Your task to perform on an android device: turn on sleep mode Image 0: 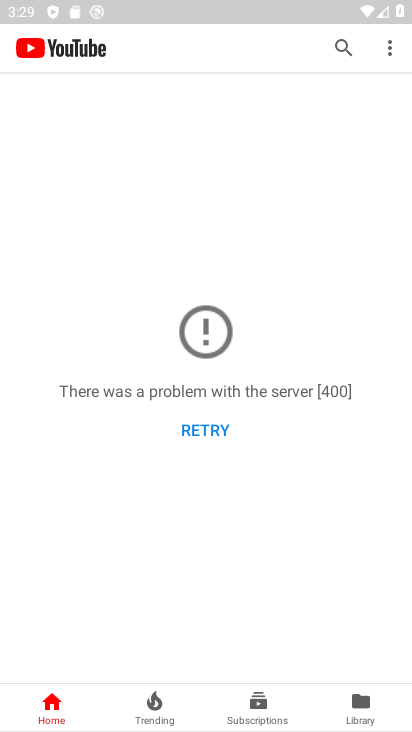
Step 0: press home button
Your task to perform on an android device: turn on sleep mode Image 1: 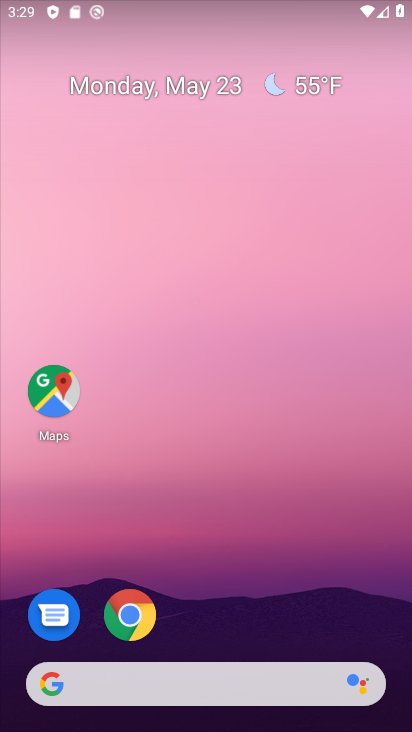
Step 1: drag from (361, 634) to (331, 270)
Your task to perform on an android device: turn on sleep mode Image 2: 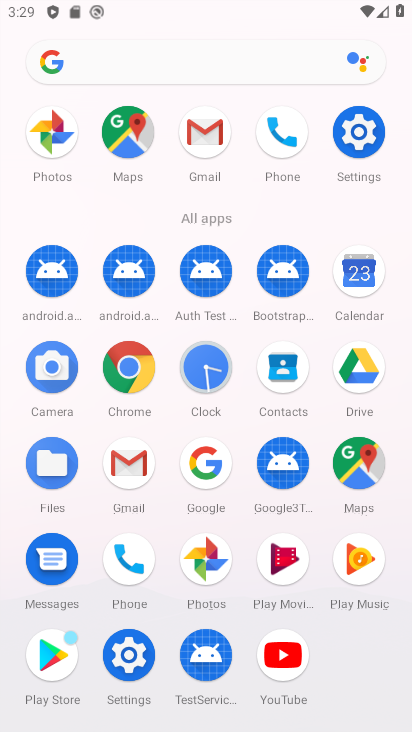
Step 2: click (133, 654)
Your task to perform on an android device: turn on sleep mode Image 3: 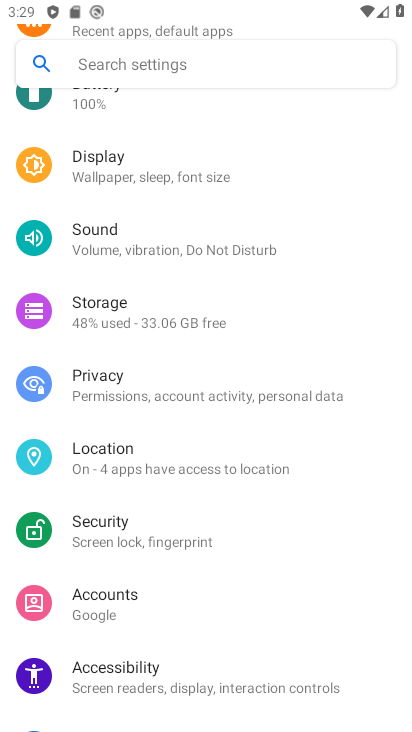
Step 3: drag from (354, 311) to (329, 540)
Your task to perform on an android device: turn on sleep mode Image 4: 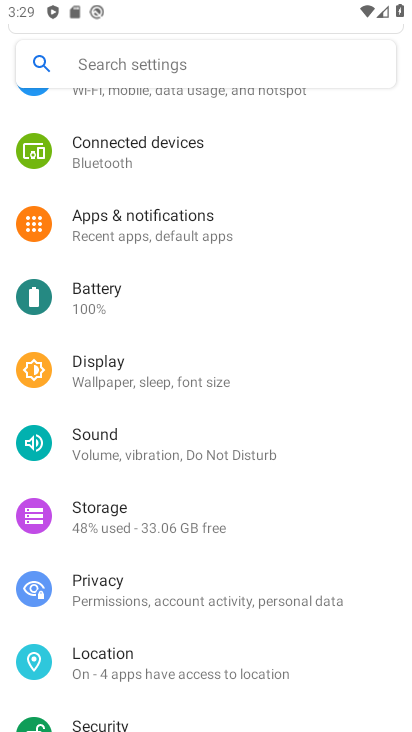
Step 4: drag from (340, 249) to (309, 528)
Your task to perform on an android device: turn on sleep mode Image 5: 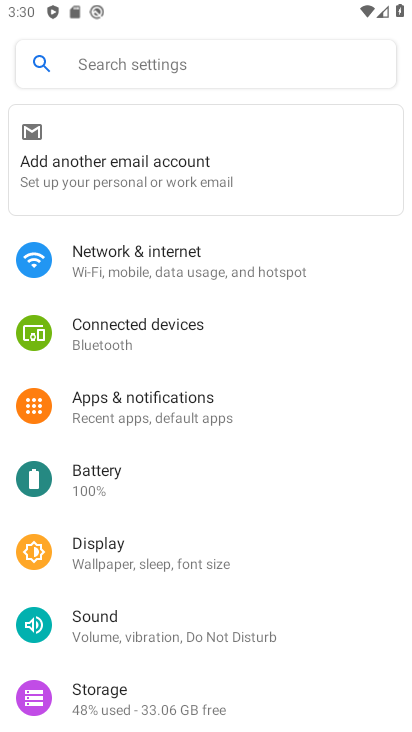
Step 5: drag from (338, 582) to (337, 387)
Your task to perform on an android device: turn on sleep mode Image 6: 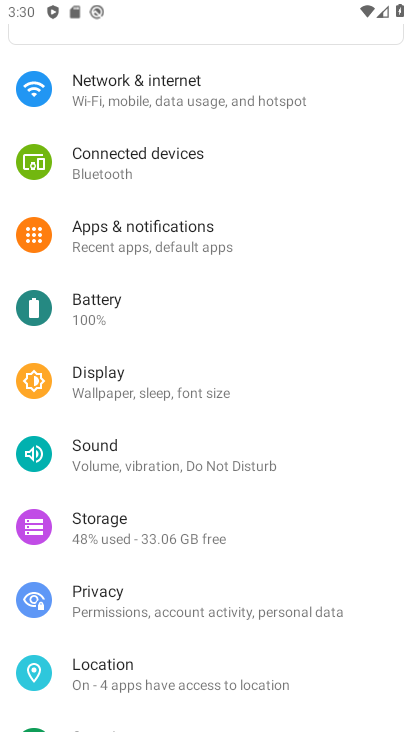
Step 6: drag from (339, 636) to (336, 479)
Your task to perform on an android device: turn on sleep mode Image 7: 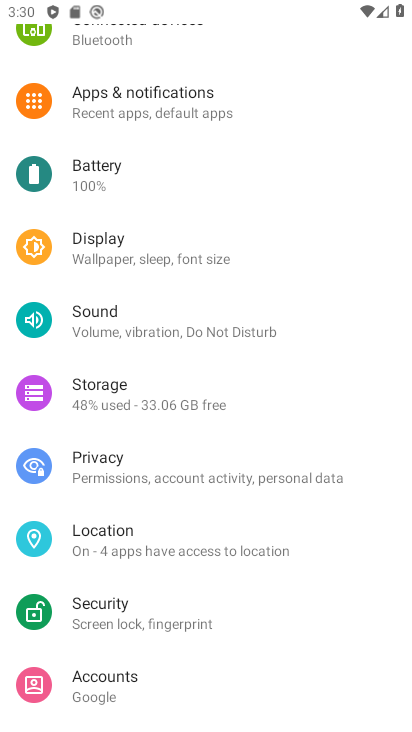
Step 7: drag from (336, 673) to (339, 533)
Your task to perform on an android device: turn on sleep mode Image 8: 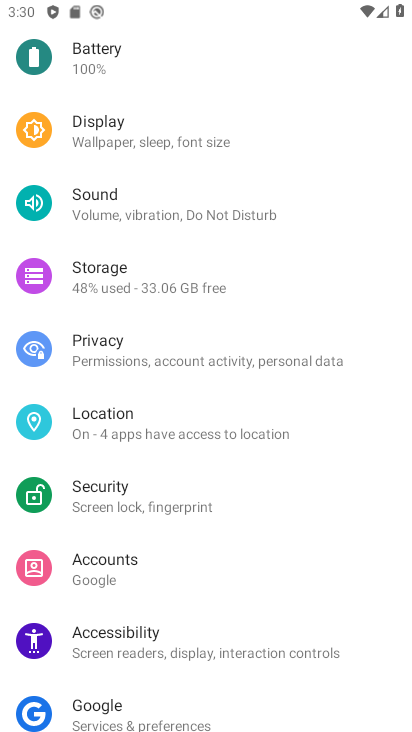
Step 8: drag from (349, 680) to (347, 460)
Your task to perform on an android device: turn on sleep mode Image 9: 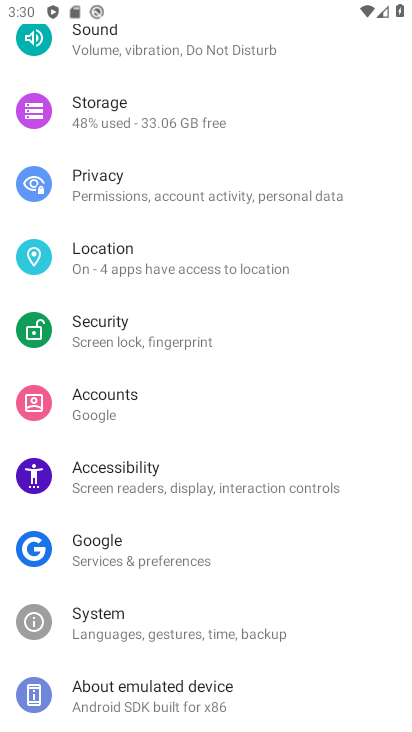
Step 9: drag from (358, 612) to (354, 433)
Your task to perform on an android device: turn on sleep mode Image 10: 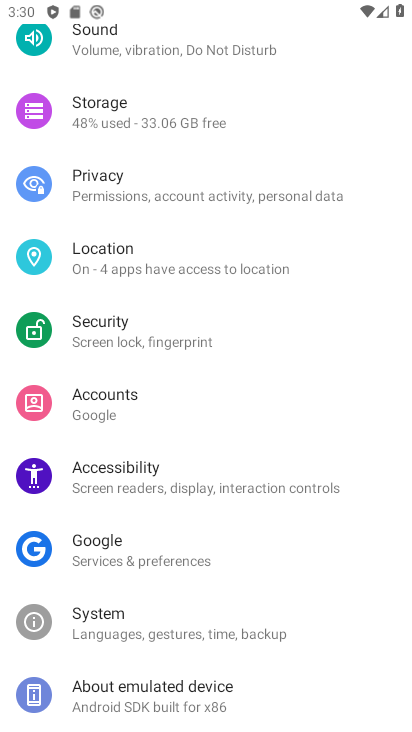
Step 10: drag from (334, 646) to (332, 433)
Your task to perform on an android device: turn on sleep mode Image 11: 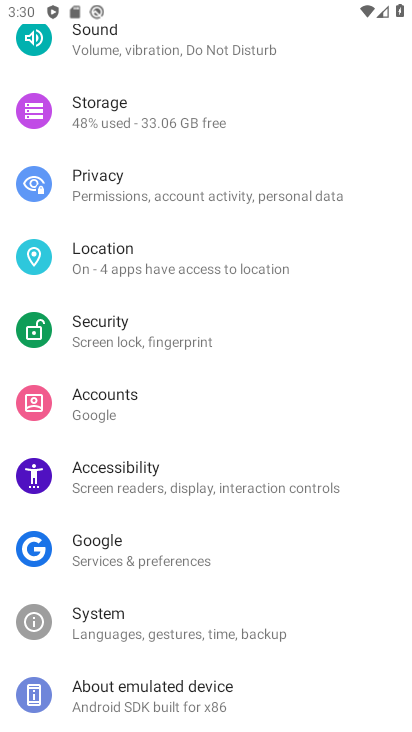
Step 11: drag from (341, 352) to (342, 503)
Your task to perform on an android device: turn on sleep mode Image 12: 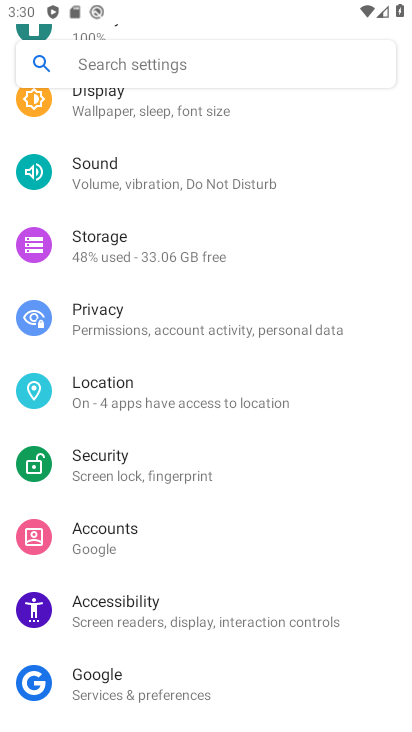
Step 12: drag from (362, 351) to (342, 526)
Your task to perform on an android device: turn on sleep mode Image 13: 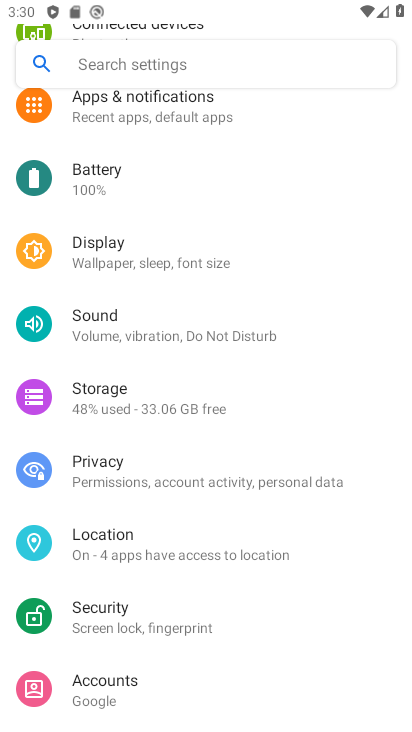
Step 13: drag from (347, 330) to (321, 544)
Your task to perform on an android device: turn on sleep mode Image 14: 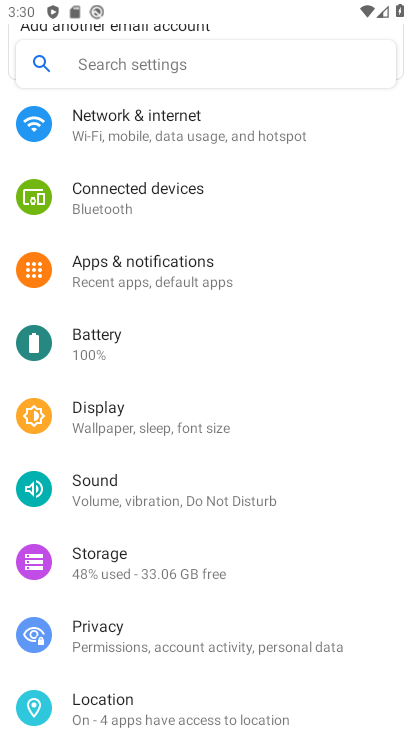
Step 14: drag from (318, 276) to (308, 485)
Your task to perform on an android device: turn on sleep mode Image 15: 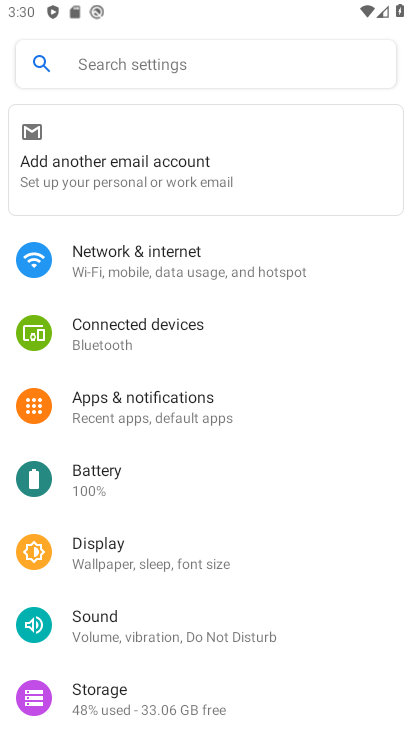
Step 15: drag from (336, 264) to (339, 490)
Your task to perform on an android device: turn on sleep mode Image 16: 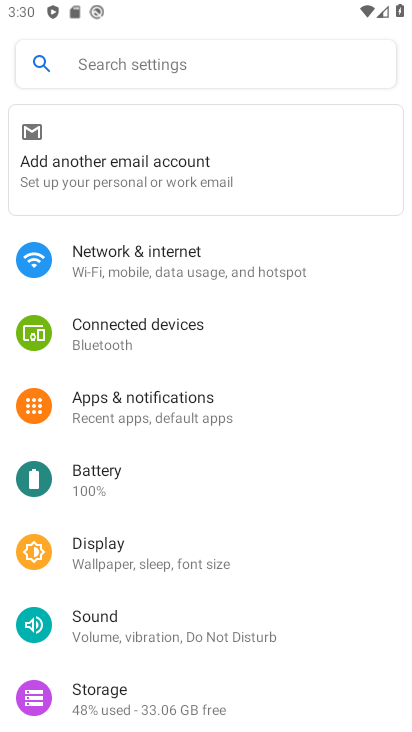
Step 16: drag from (332, 594) to (343, 409)
Your task to perform on an android device: turn on sleep mode Image 17: 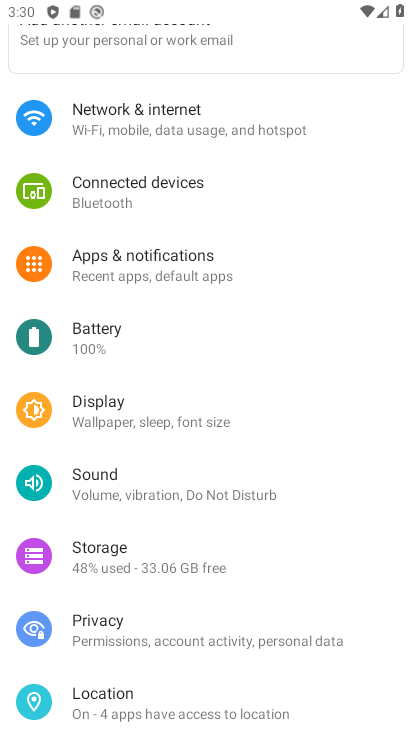
Step 17: click (170, 431)
Your task to perform on an android device: turn on sleep mode Image 18: 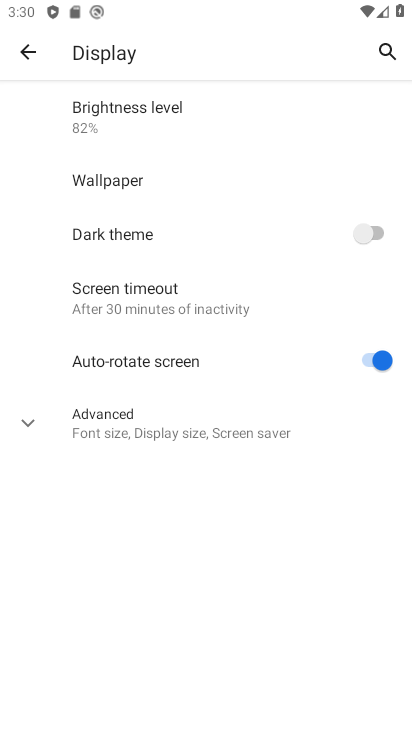
Step 18: click (186, 422)
Your task to perform on an android device: turn on sleep mode Image 19: 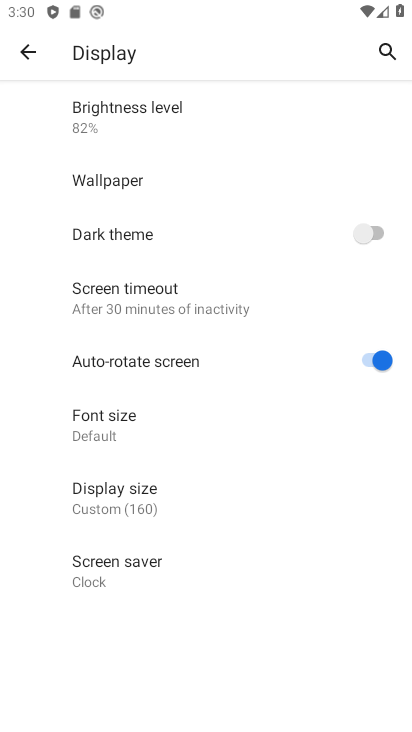
Step 19: task complete